Your task to perform on an android device: delete the emails in spam in the gmail app Image 0: 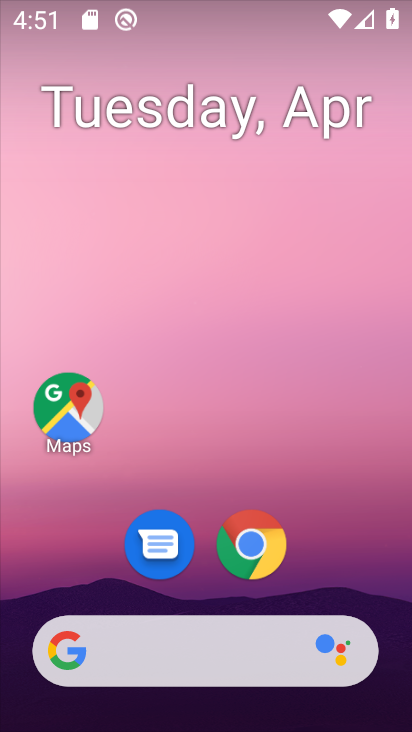
Step 0: drag from (245, 621) to (253, 116)
Your task to perform on an android device: delete the emails in spam in the gmail app Image 1: 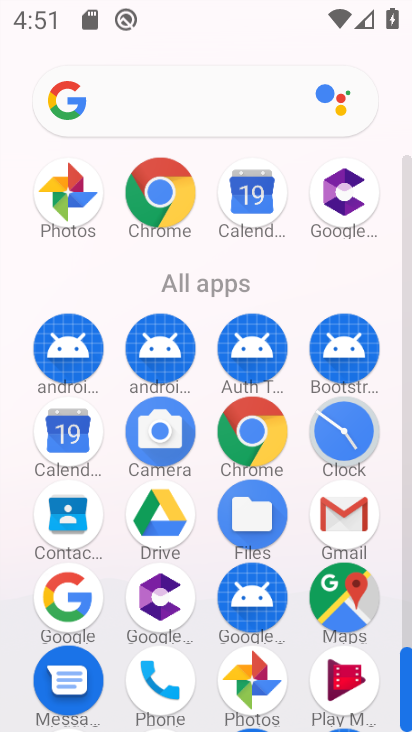
Step 1: click (348, 528)
Your task to perform on an android device: delete the emails in spam in the gmail app Image 2: 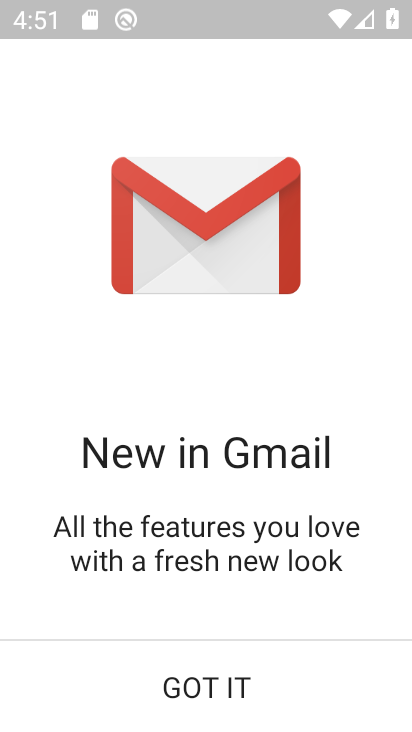
Step 2: click (229, 684)
Your task to perform on an android device: delete the emails in spam in the gmail app Image 3: 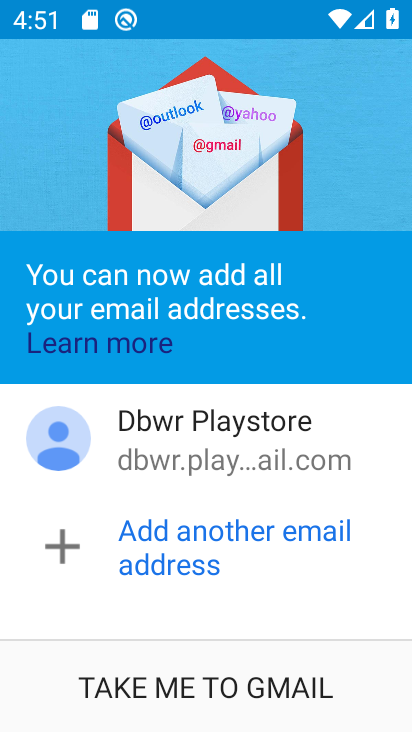
Step 3: click (293, 688)
Your task to perform on an android device: delete the emails in spam in the gmail app Image 4: 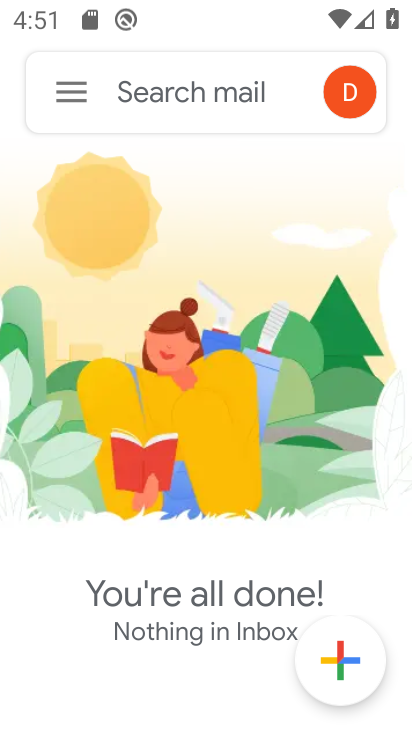
Step 4: click (74, 92)
Your task to perform on an android device: delete the emails in spam in the gmail app Image 5: 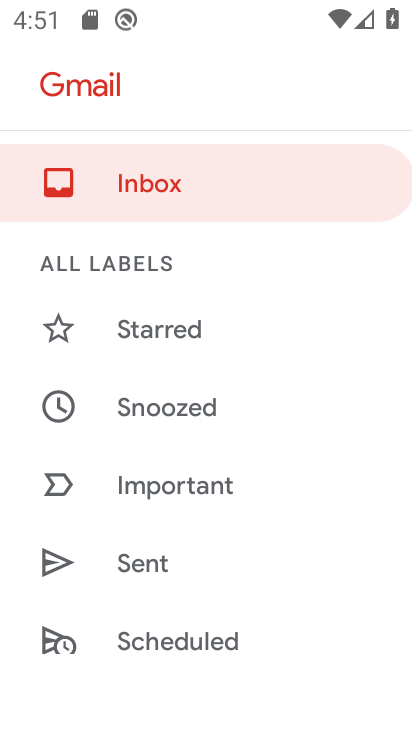
Step 5: drag from (176, 575) to (102, 300)
Your task to perform on an android device: delete the emails in spam in the gmail app Image 6: 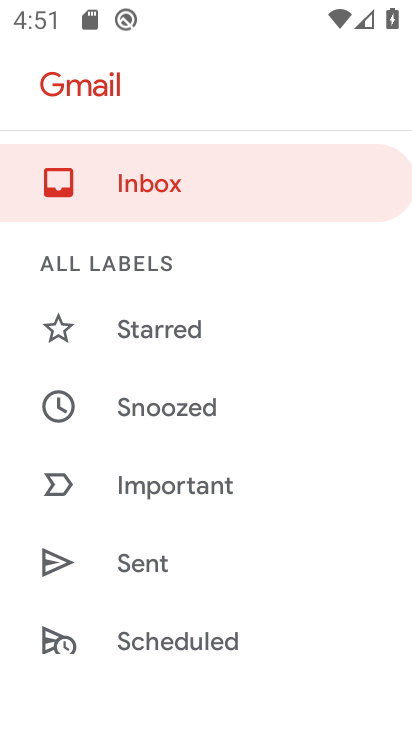
Step 6: drag from (182, 520) to (191, 353)
Your task to perform on an android device: delete the emails in spam in the gmail app Image 7: 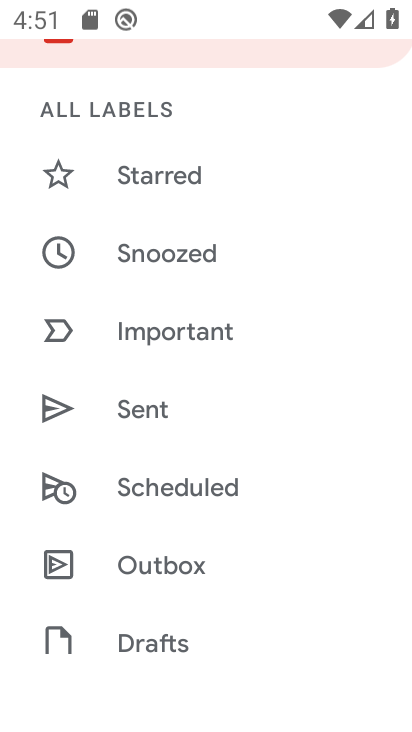
Step 7: drag from (160, 601) to (190, 404)
Your task to perform on an android device: delete the emails in spam in the gmail app Image 8: 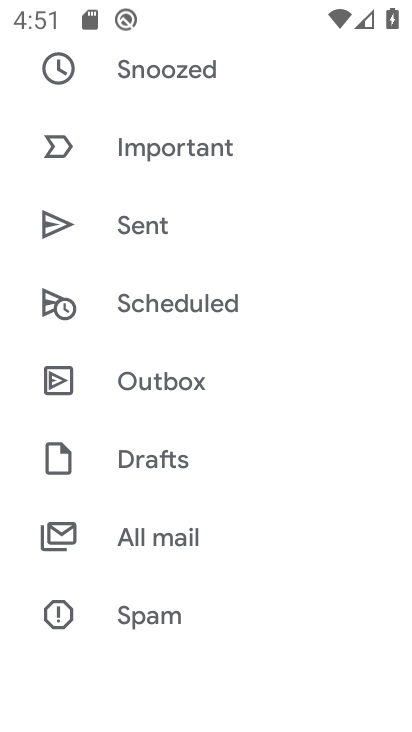
Step 8: click (166, 624)
Your task to perform on an android device: delete the emails in spam in the gmail app Image 9: 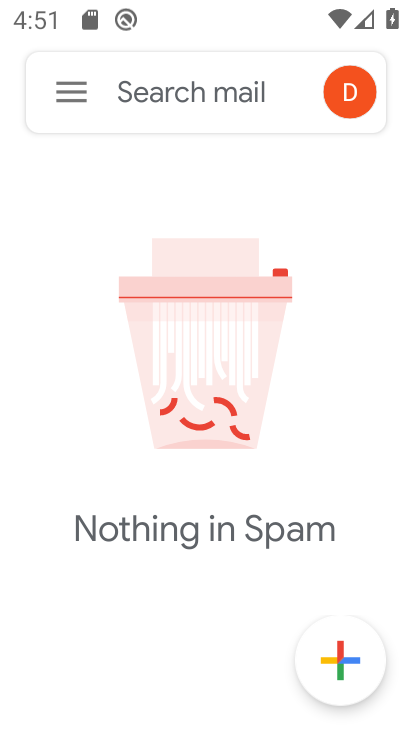
Step 9: task complete